Your task to perform on an android device: all mails in gmail Image 0: 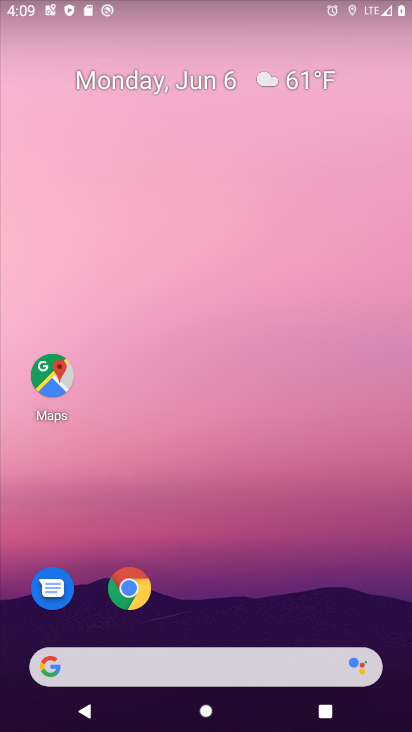
Step 0: drag from (257, 500) to (195, 182)
Your task to perform on an android device: all mails in gmail Image 1: 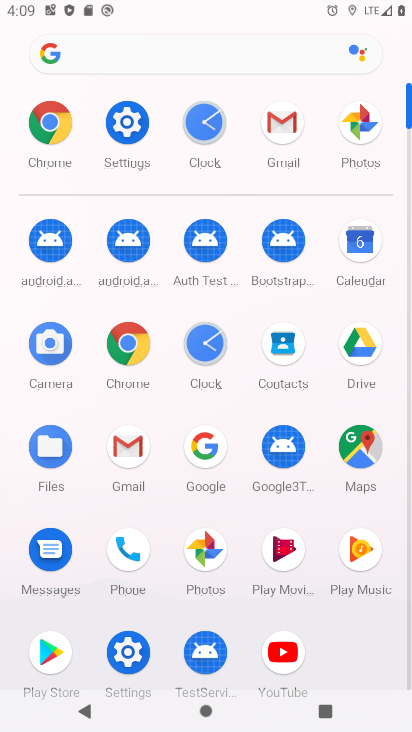
Step 1: click (283, 146)
Your task to perform on an android device: all mails in gmail Image 2: 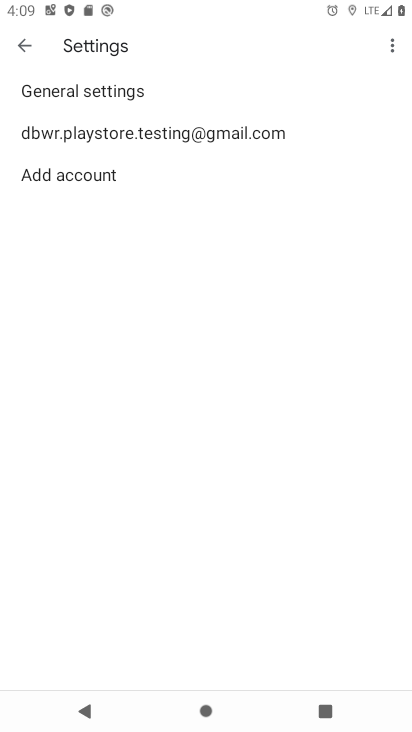
Step 2: click (18, 52)
Your task to perform on an android device: all mails in gmail Image 3: 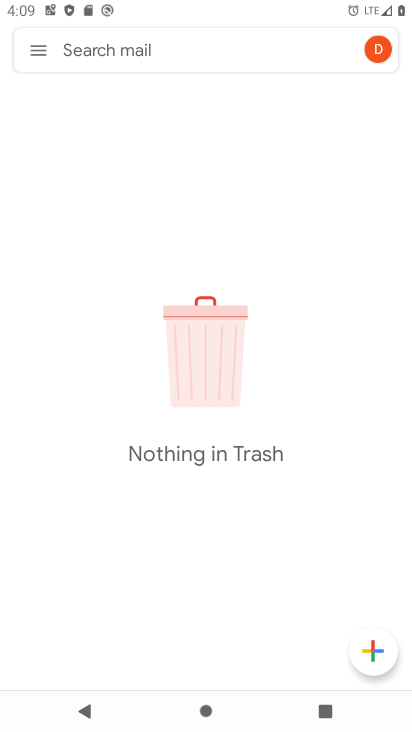
Step 3: click (27, 54)
Your task to perform on an android device: all mails in gmail Image 4: 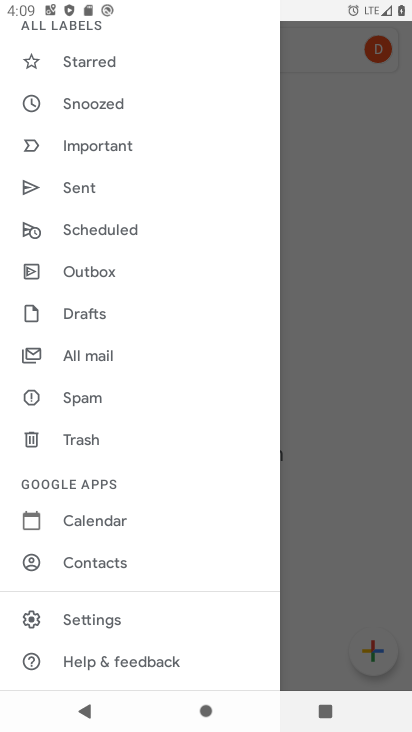
Step 4: click (120, 373)
Your task to perform on an android device: all mails in gmail Image 5: 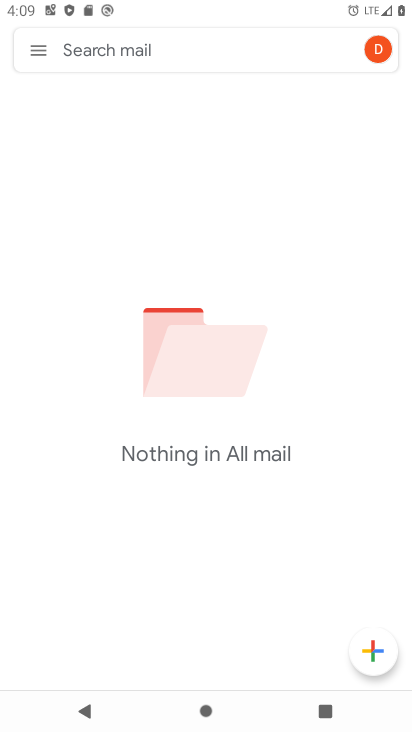
Step 5: task complete